Your task to perform on an android device: Go to location settings Image 0: 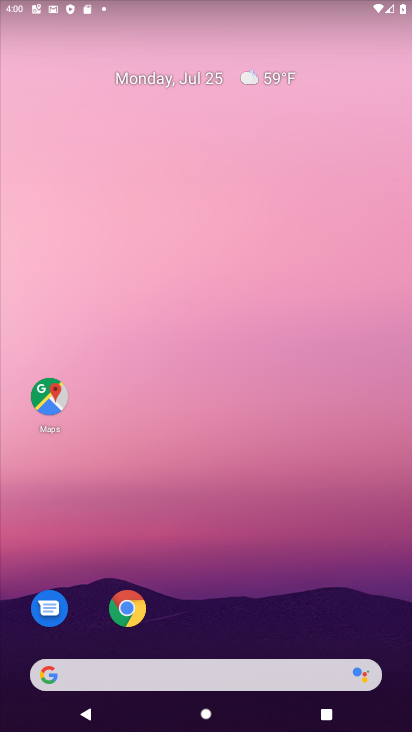
Step 0: drag from (246, 657) to (211, 0)
Your task to perform on an android device: Go to location settings Image 1: 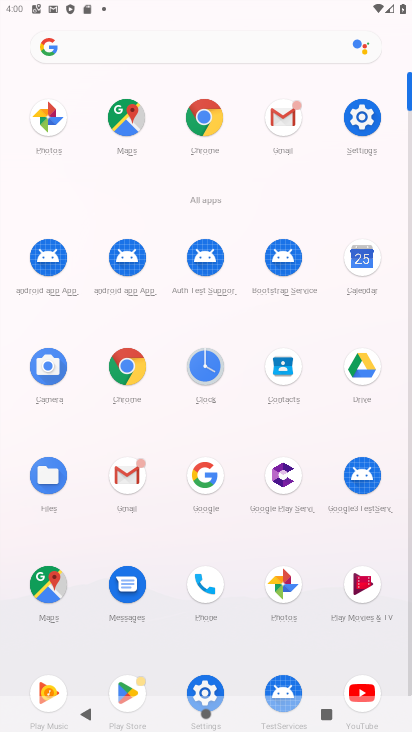
Step 1: click (353, 114)
Your task to perform on an android device: Go to location settings Image 2: 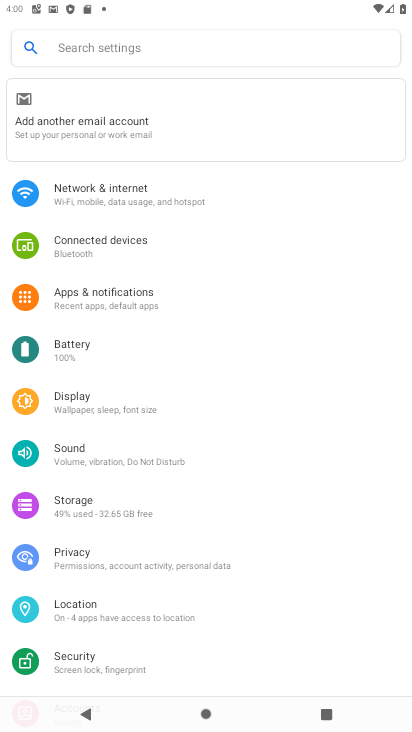
Step 2: click (80, 614)
Your task to perform on an android device: Go to location settings Image 3: 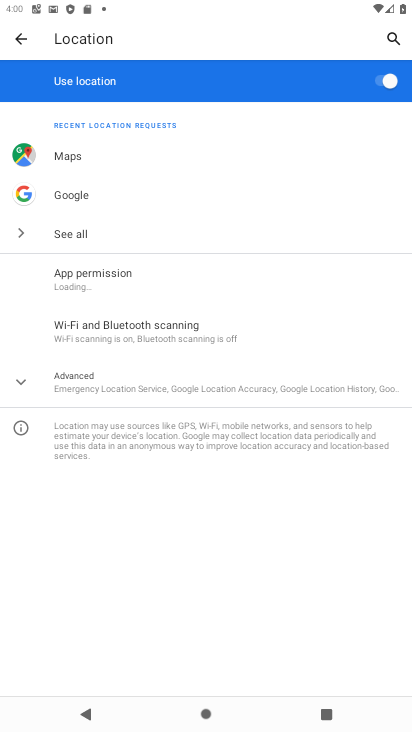
Step 3: task complete